Your task to perform on an android device: open chrome and create a bookmark for the current page Image 0: 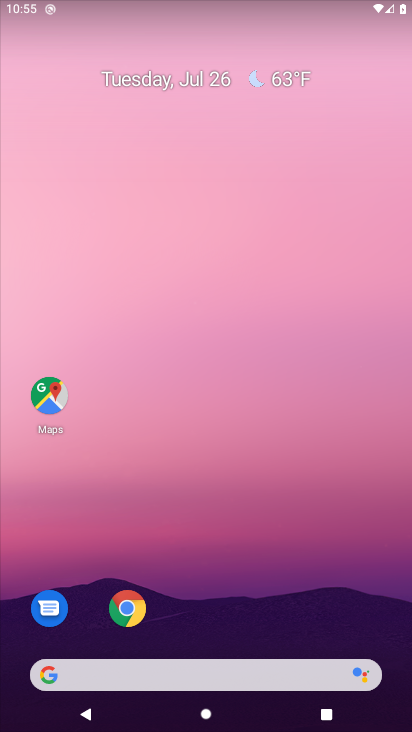
Step 0: press home button
Your task to perform on an android device: open chrome and create a bookmark for the current page Image 1: 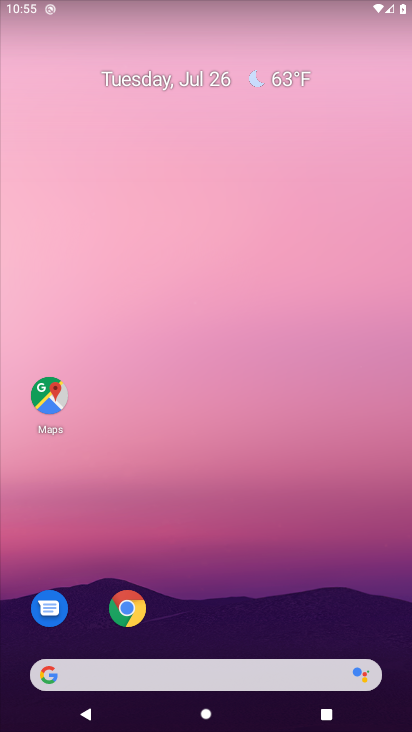
Step 1: click (131, 613)
Your task to perform on an android device: open chrome and create a bookmark for the current page Image 2: 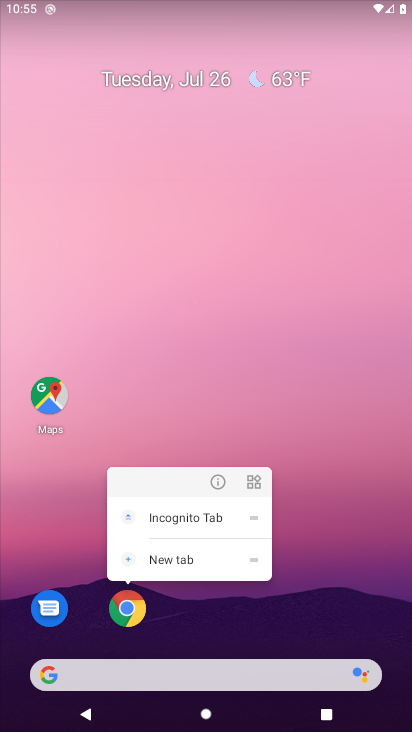
Step 2: click (148, 593)
Your task to perform on an android device: open chrome and create a bookmark for the current page Image 3: 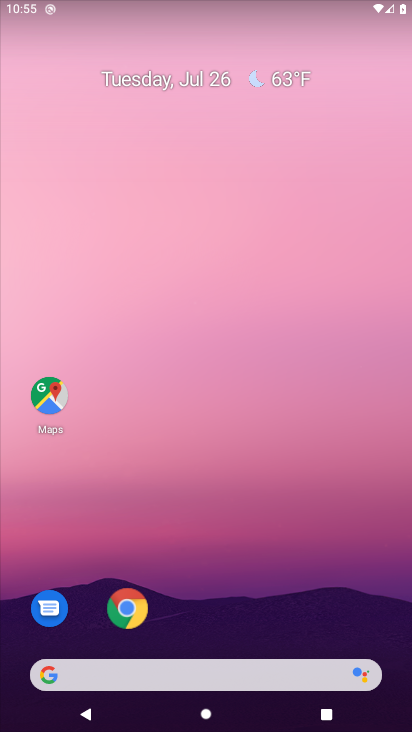
Step 3: click (132, 608)
Your task to perform on an android device: open chrome and create a bookmark for the current page Image 4: 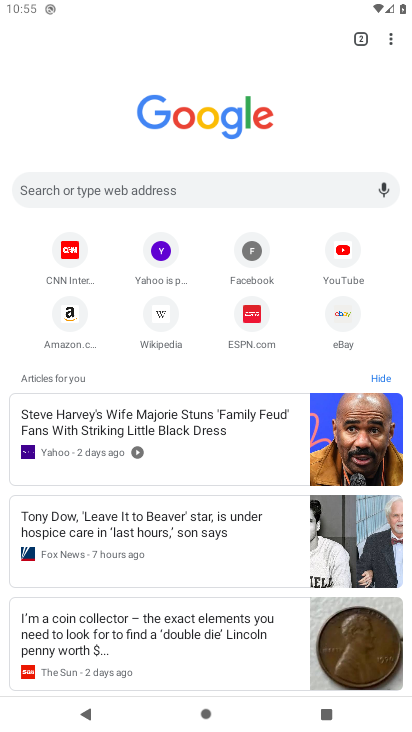
Step 4: click (393, 36)
Your task to perform on an android device: open chrome and create a bookmark for the current page Image 5: 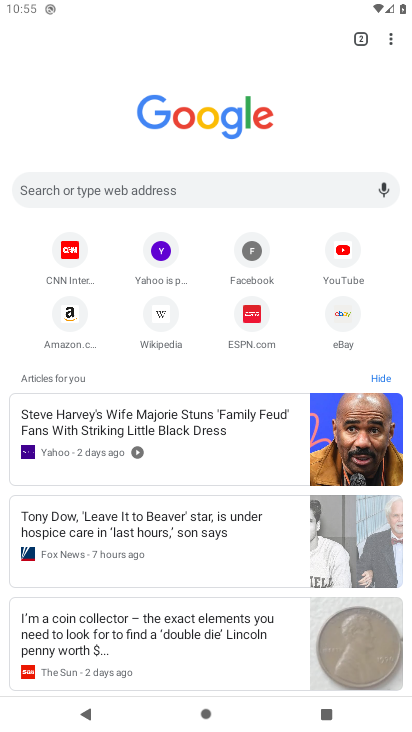
Step 5: click (393, 36)
Your task to perform on an android device: open chrome and create a bookmark for the current page Image 6: 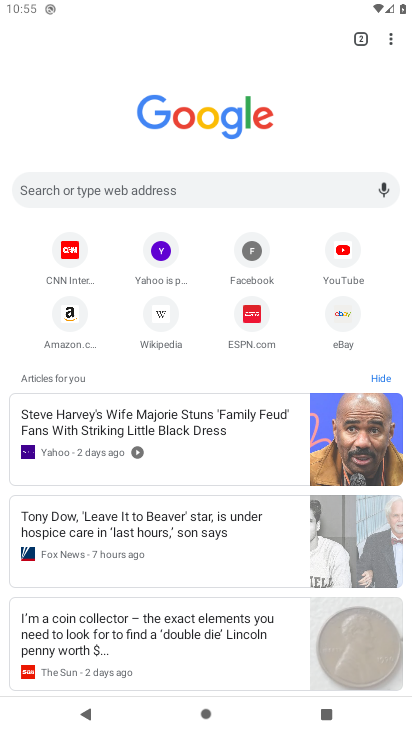
Step 6: task complete